Your task to perform on an android device: toggle pop-ups in chrome Image 0: 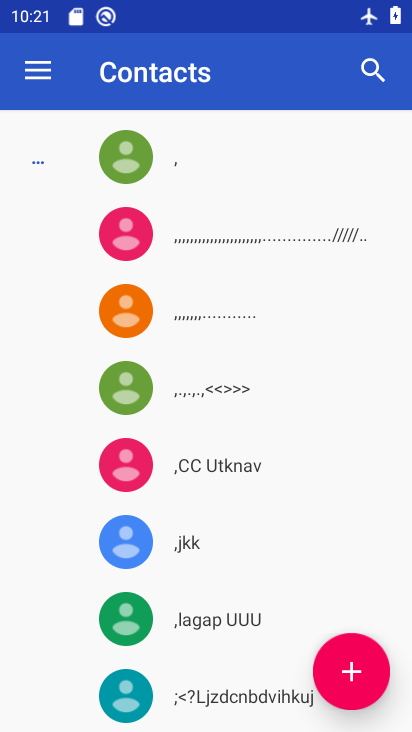
Step 0: press home button
Your task to perform on an android device: toggle pop-ups in chrome Image 1: 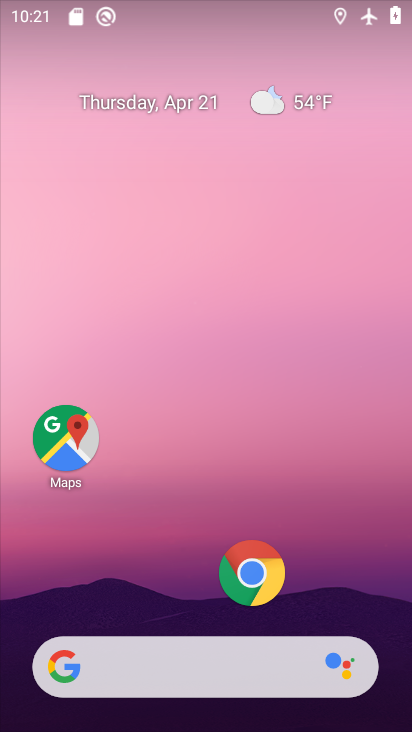
Step 1: click (245, 584)
Your task to perform on an android device: toggle pop-ups in chrome Image 2: 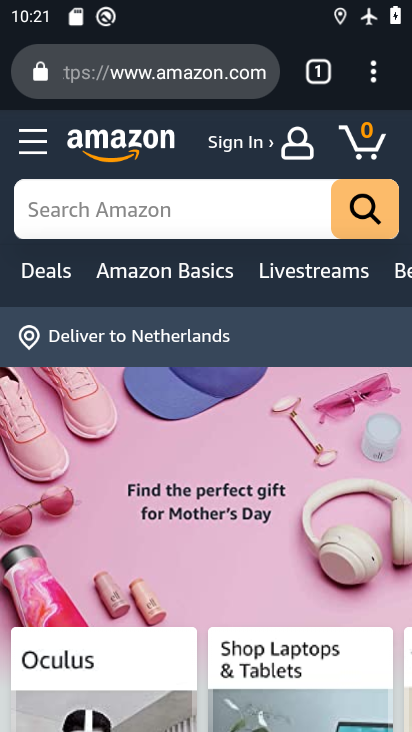
Step 2: drag from (374, 77) to (130, 570)
Your task to perform on an android device: toggle pop-ups in chrome Image 3: 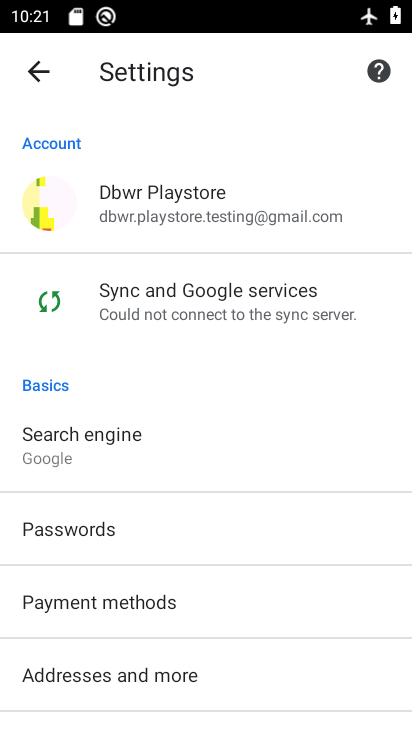
Step 3: drag from (204, 599) to (201, 237)
Your task to perform on an android device: toggle pop-ups in chrome Image 4: 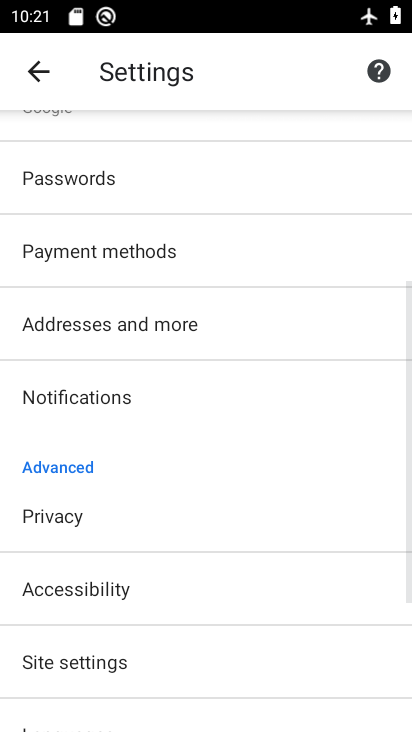
Step 4: drag from (138, 655) to (165, 406)
Your task to perform on an android device: toggle pop-ups in chrome Image 5: 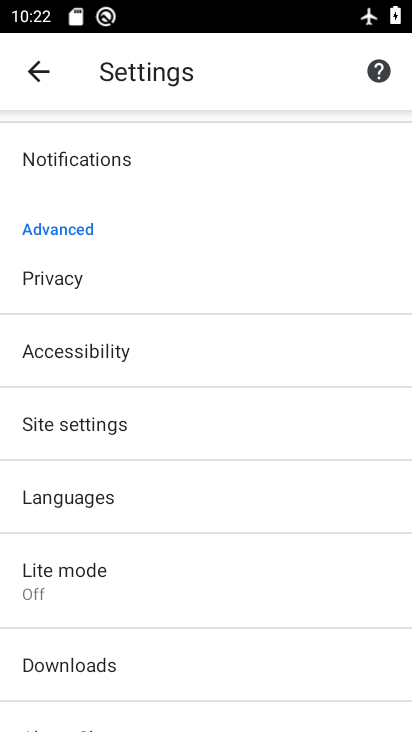
Step 5: drag from (201, 618) to (208, 390)
Your task to perform on an android device: toggle pop-ups in chrome Image 6: 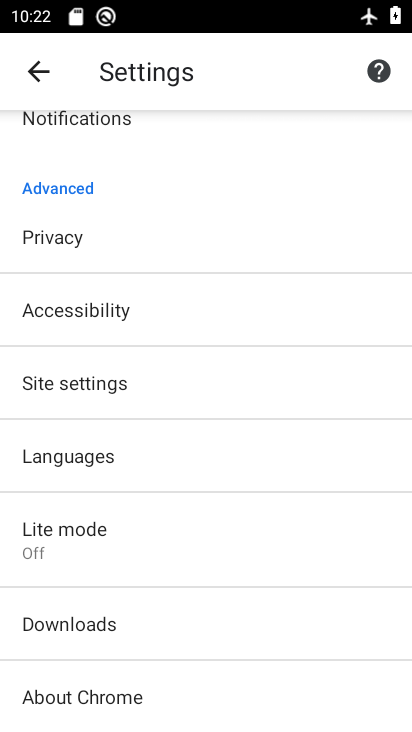
Step 6: drag from (156, 675) to (176, 447)
Your task to perform on an android device: toggle pop-ups in chrome Image 7: 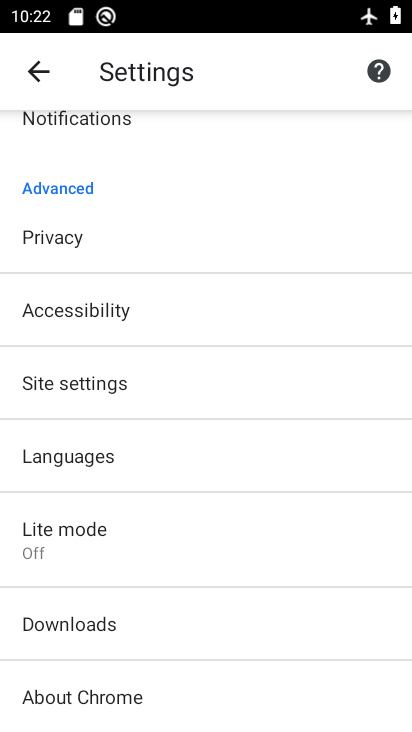
Step 7: click (128, 375)
Your task to perform on an android device: toggle pop-ups in chrome Image 8: 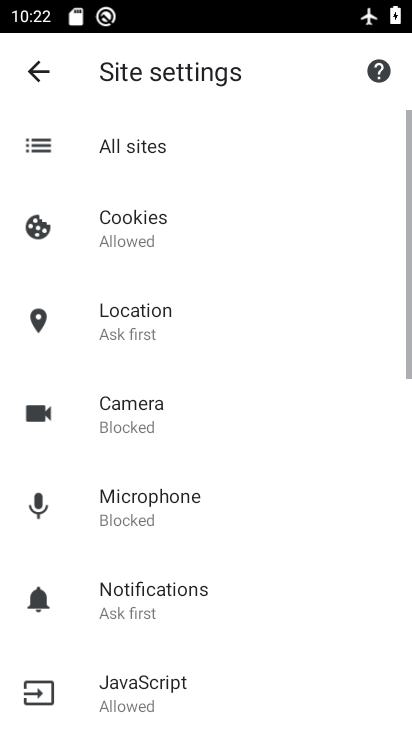
Step 8: drag from (211, 632) to (263, 266)
Your task to perform on an android device: toggle pop-ups in chrome Image 9: 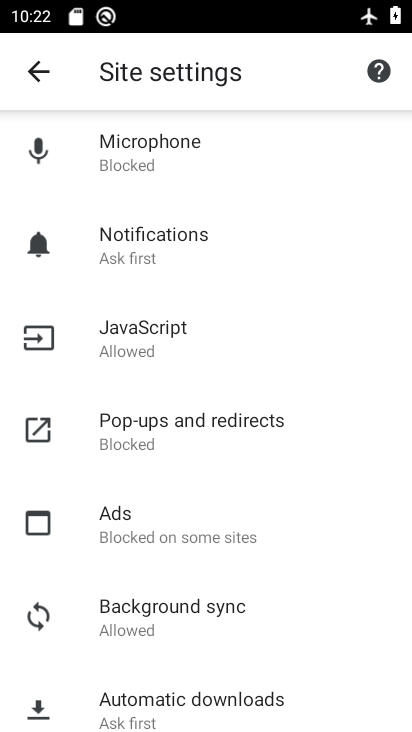
Step 9: click (214, 401)
Your task to perform on an android device: toggle pop-ups in chrome Image 10: 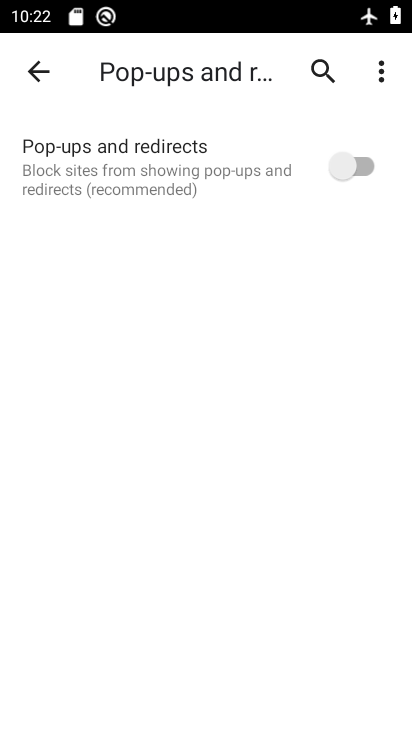
Step 10: click (361, 168)
Your task to perform on an android device: toggle pop-ups in chrome Image 11: 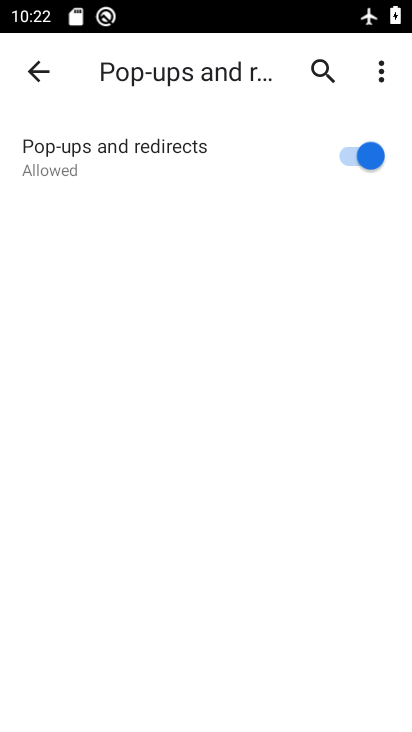
Step 11: task complete